Your task to perform on an android device: check google app version Image 0: 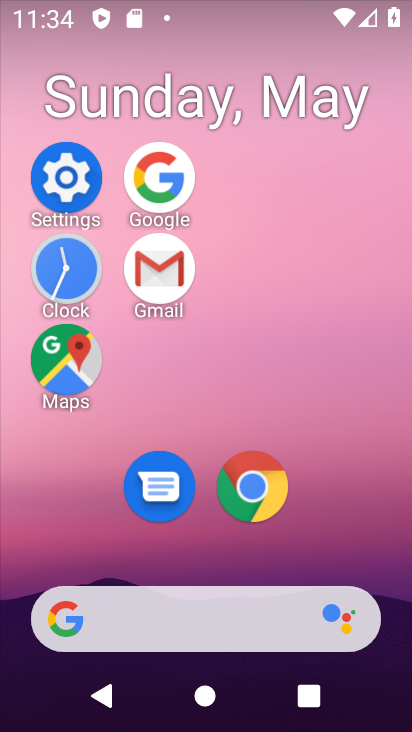
Step 0: click (248, 487)
Your task to perform on an android device: check google app version Image 1: 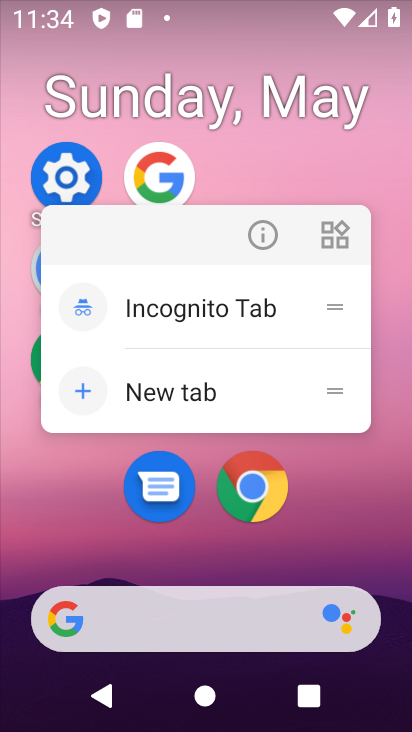
Step 1: click (264, 226)
Your task to perform on an android device: check google app version Image 2: 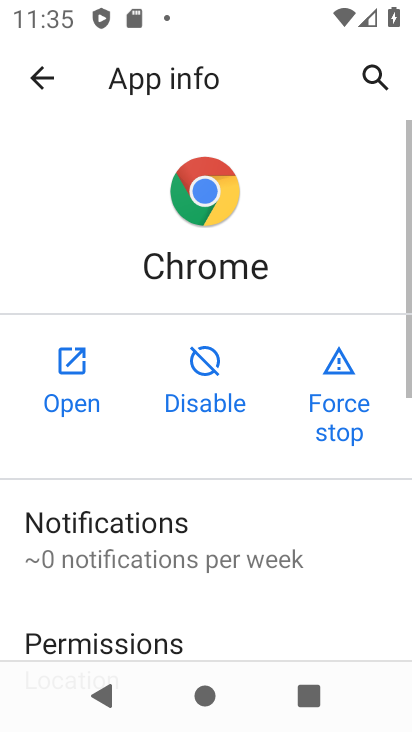
Step 2: drag from (257, 623) to (263, 111)
Your task to perform on an android device: check google app version Image 3: 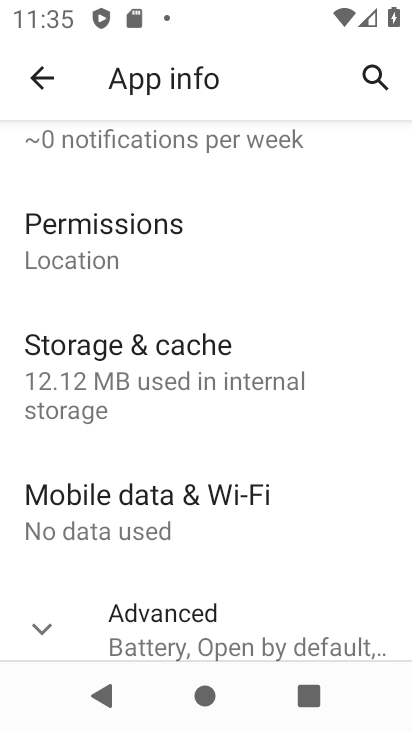
Step 3: drag from (263, 560) to (258, 173)
Your task to perform on an android device: check google app version Image 4: 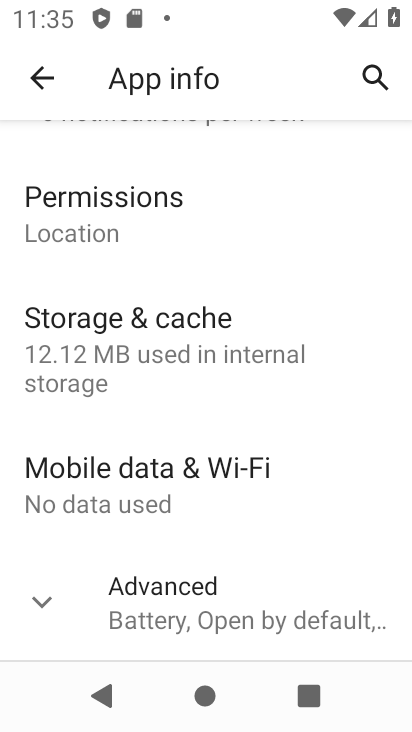
Step 4: click (190, 581)
Your task to perform on an android device: check google app version Image 5: 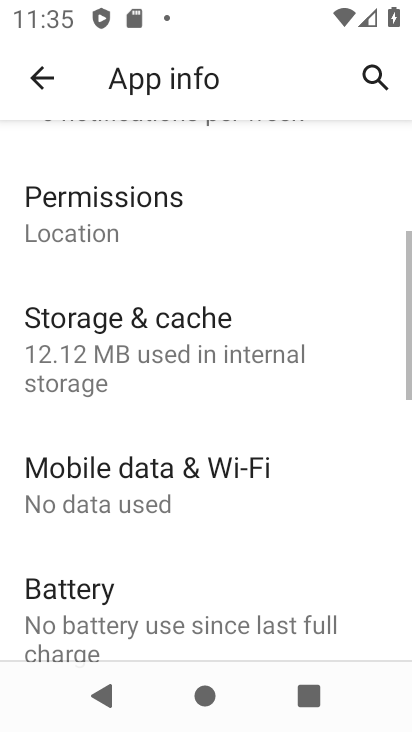
Step 5: task complete